Your task to perform on an android device: Open network settings Image 0: 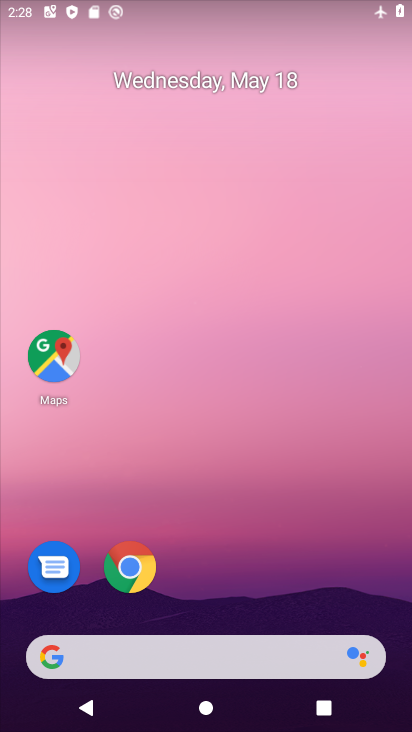
Step 0: drag from (200, 548) to (245, 188)
Your task to perform on an android device: Open network settings Image 1: 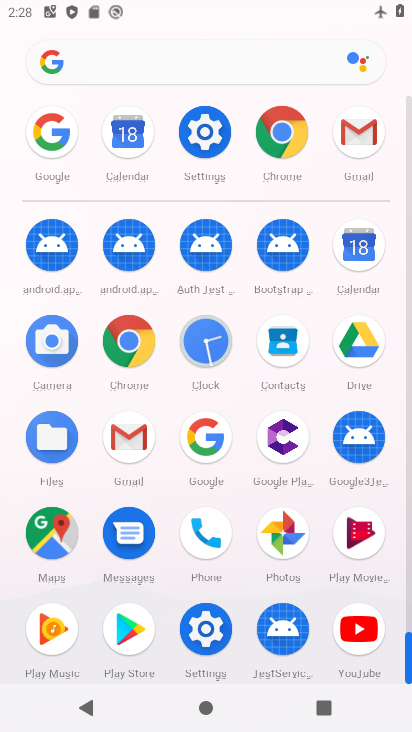
Step 1: click (187, 134)
Your task to perform on an android device: Open network settings Image 2: 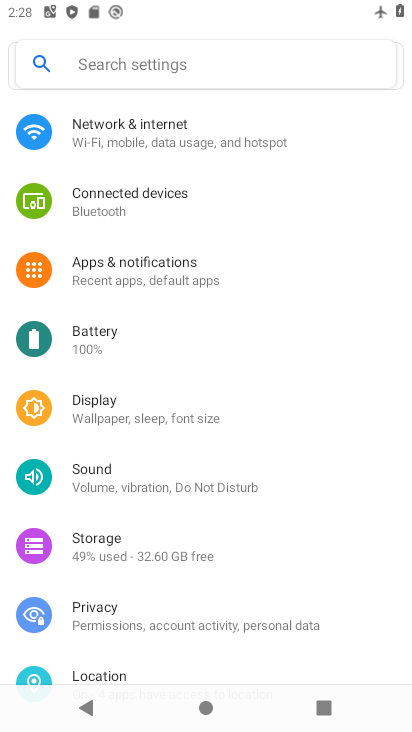
Step 2: click (189, 137)
Your task to perform on an android device: Open network settings Image 3: 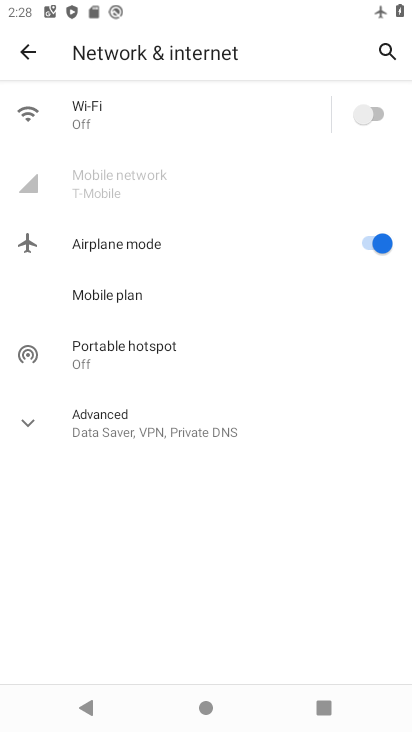
Step 3: task complete